Your task to perform on an android device: Open Google Image 0: 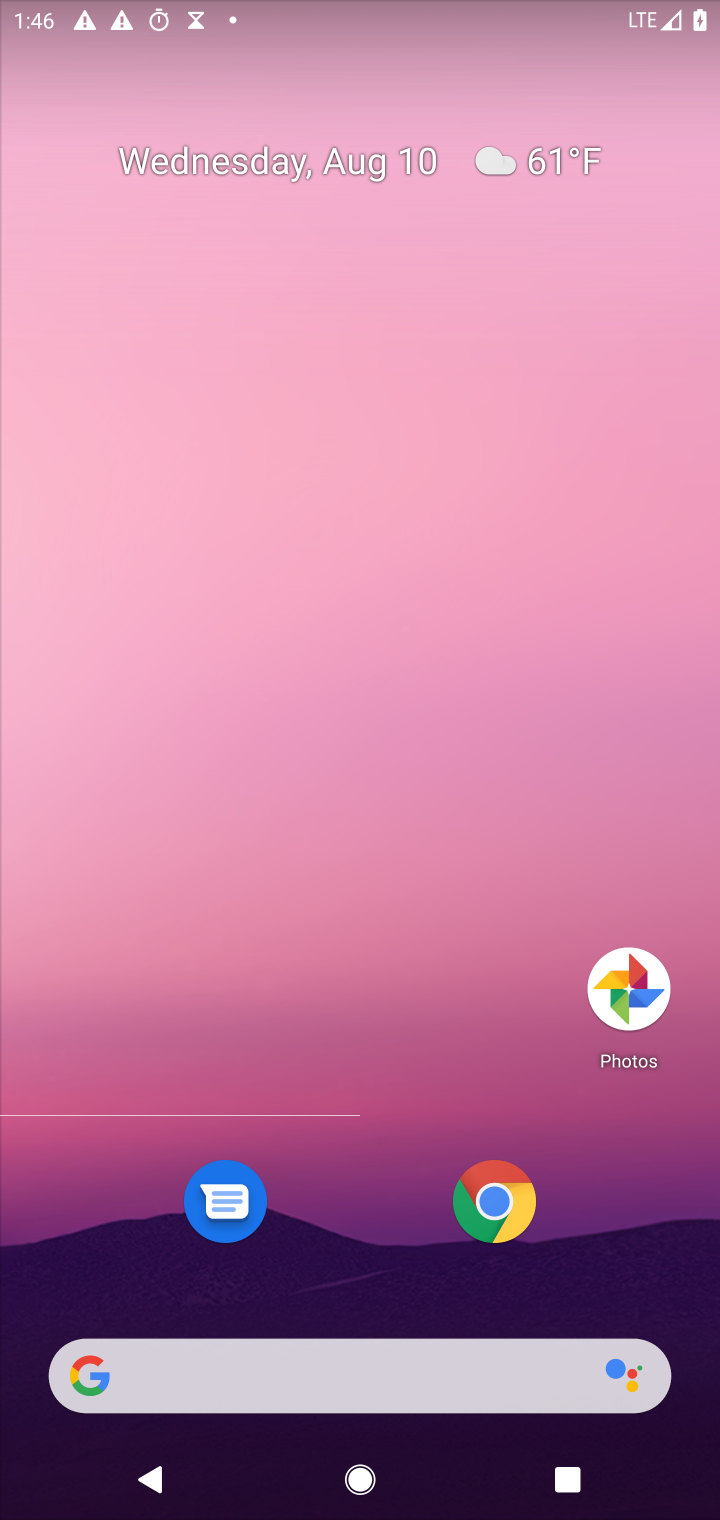
Step 0: drag from (330, 1310) to (286, 314)
Your task to perform on an android device: Open Google Image 1: 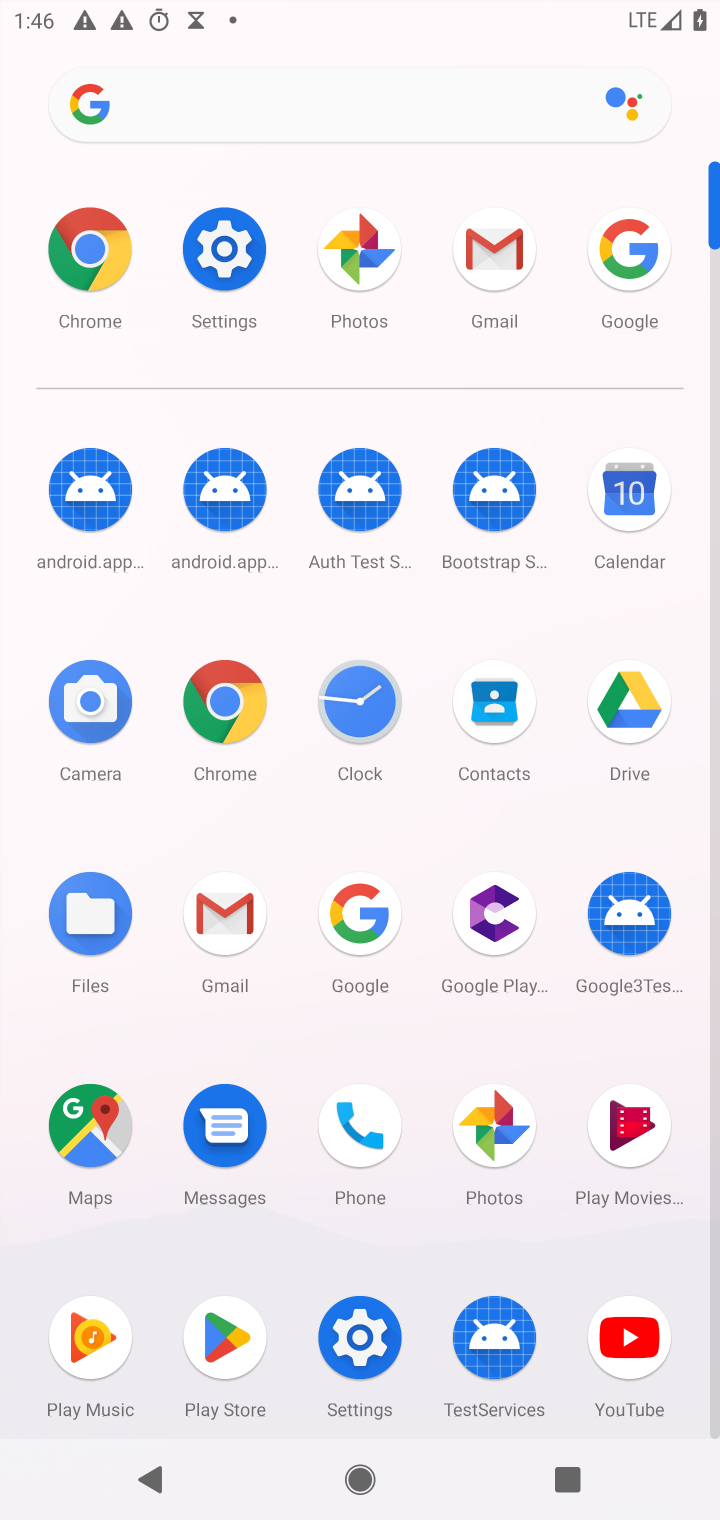
Step 1: click (360, 928)
Your task to perform on an android device: Open Google Image 2: 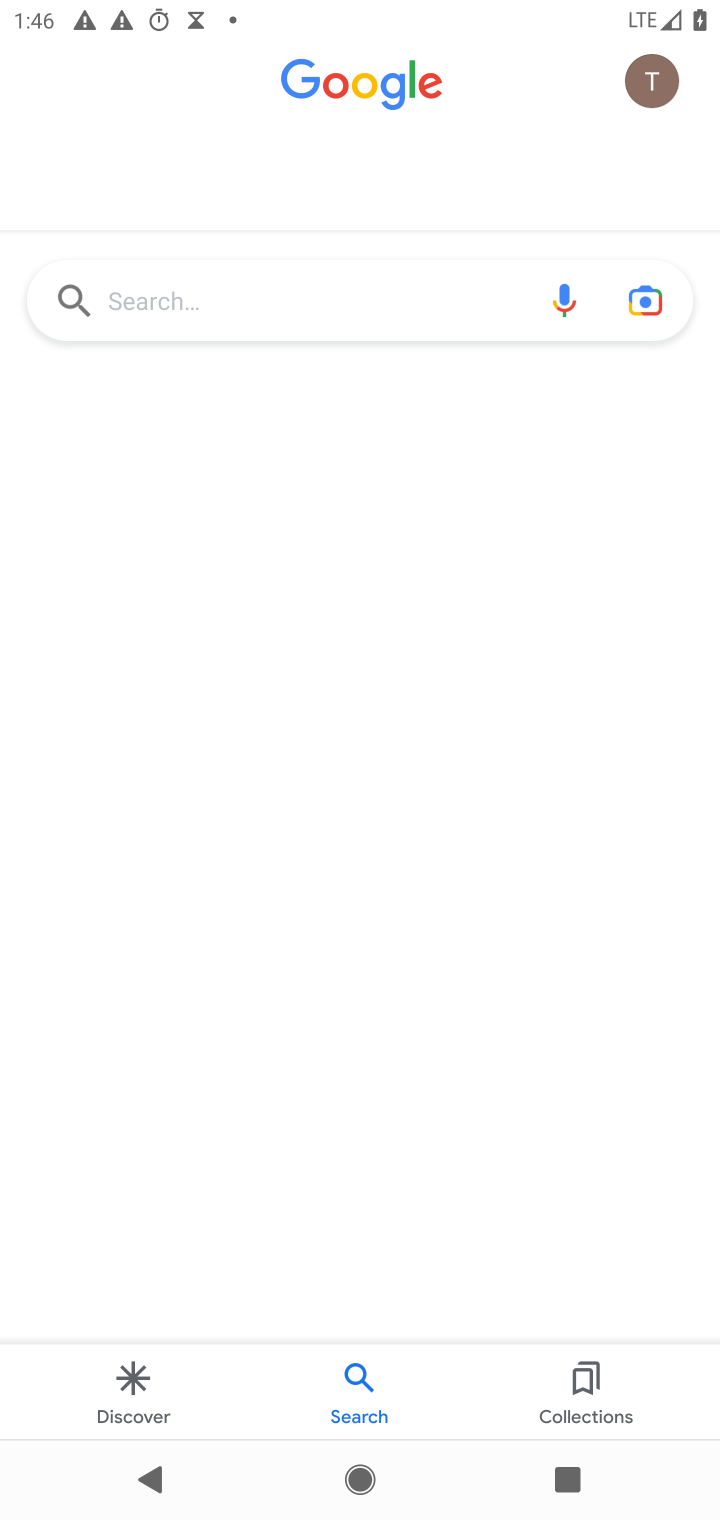
Step 2: click (205, 312)
Your task to perform on an android device: Open Google Image 3: 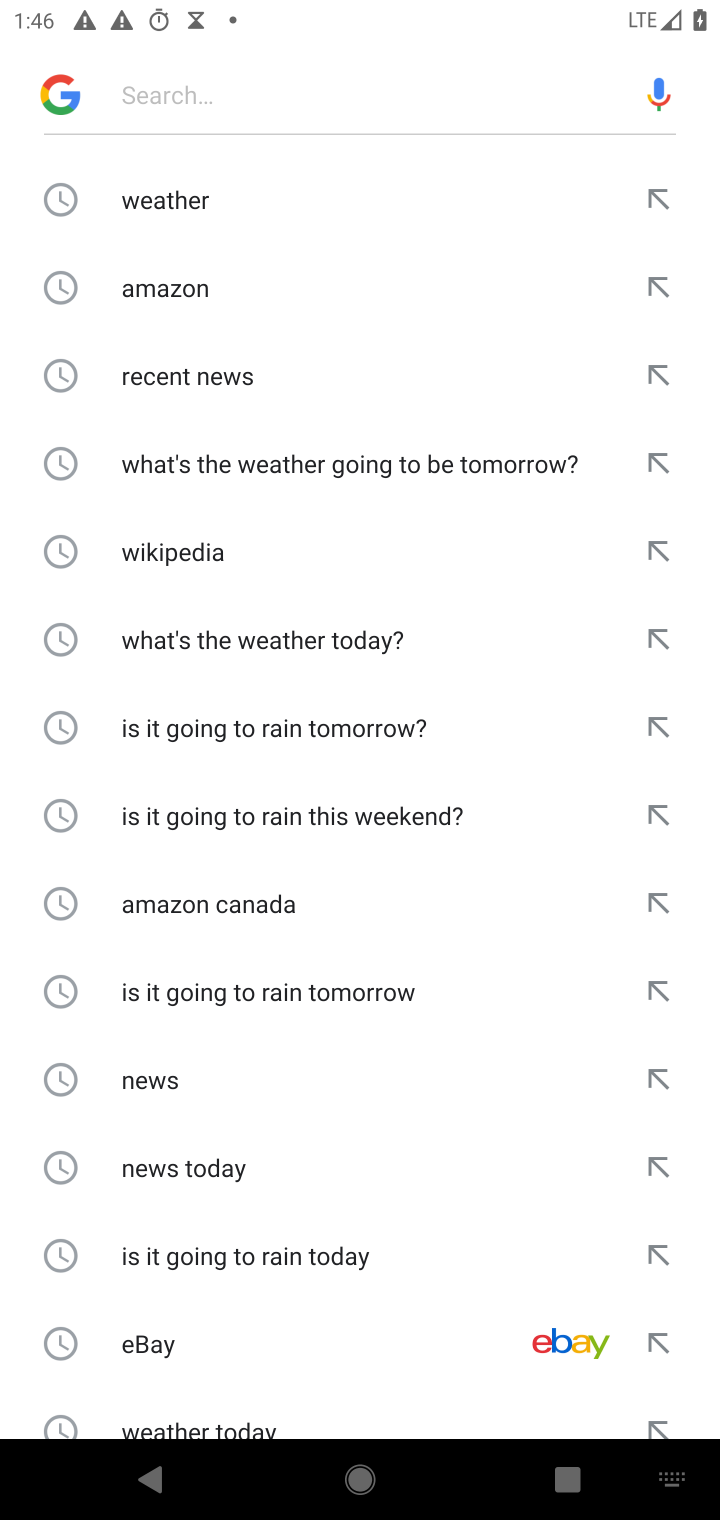
Step 3: click (56, 97)
Your task to perform on an android device: Open Google Image 4: 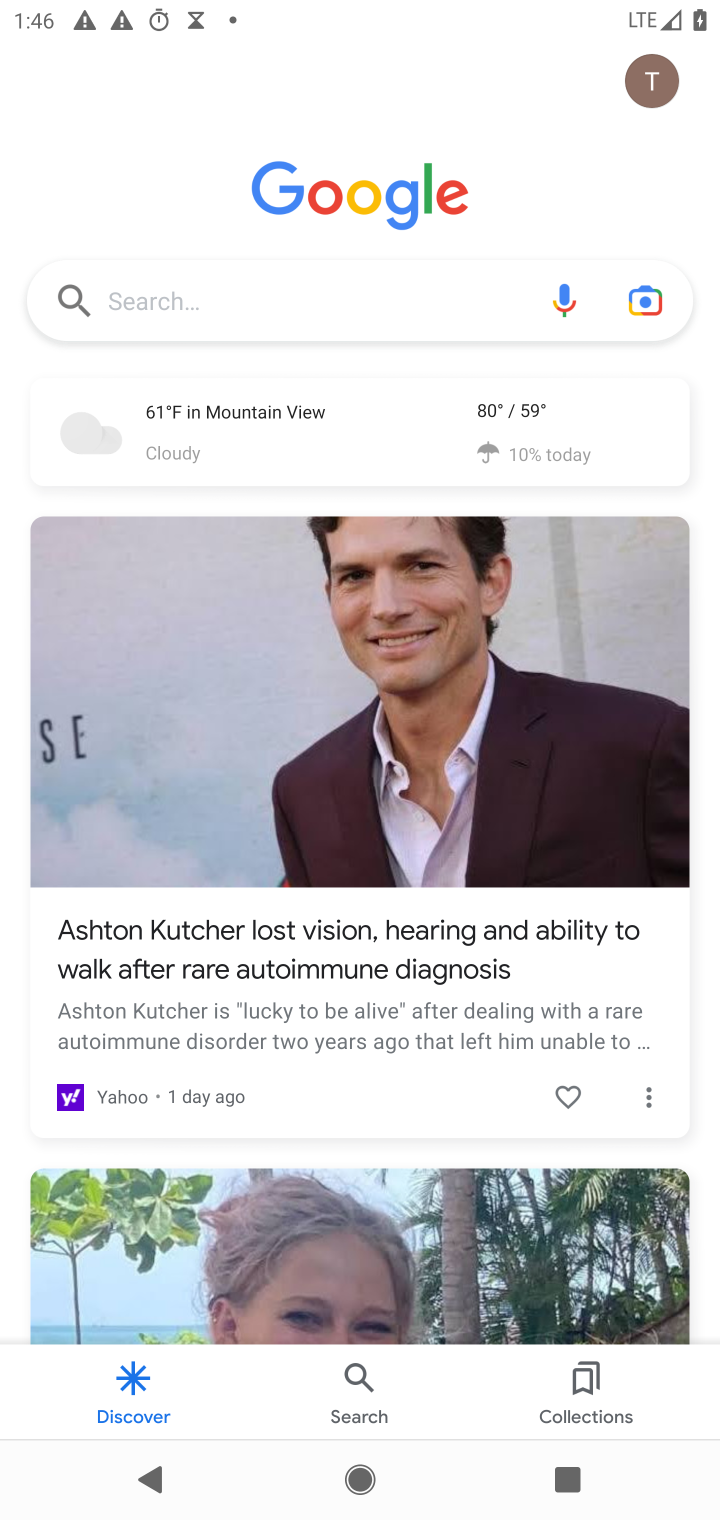
Step 4: task complete